Your task to perform on an android device: move an email to a new category in the gmail app Image 0: 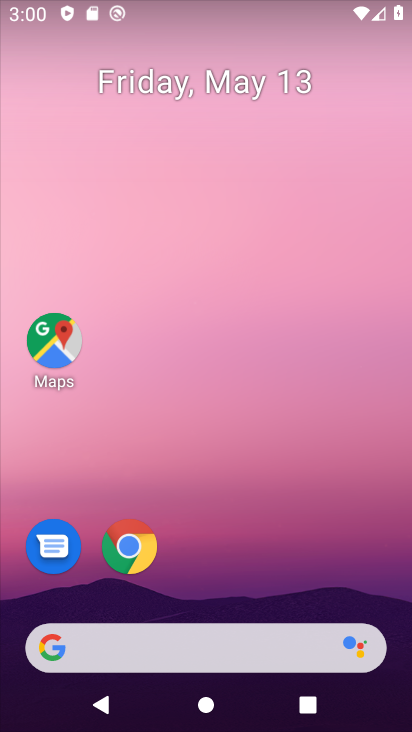
Step 0: drag from (183, 595) to (197, 42)
Your task to perform on an android device: move an email to a new category in the gmail app Image 1: 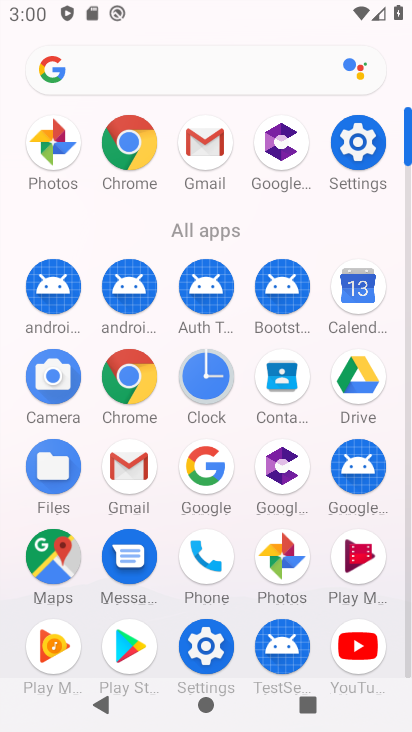
Step 1: click (211, 138)
Your task to perform on an android device: move an email to a new category in the gmail app Image 2: 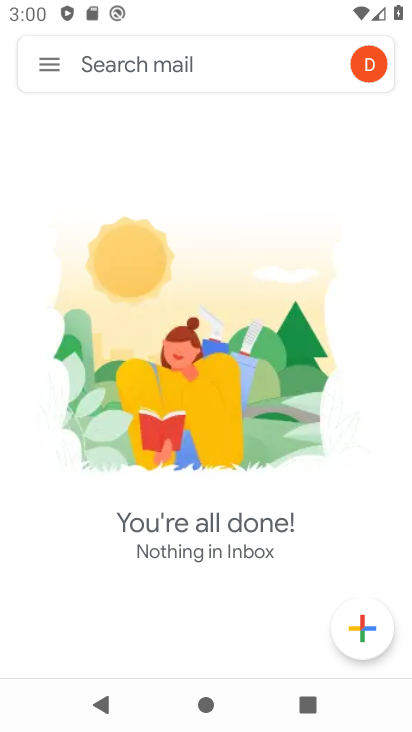
Step 2: task complete